Your task to perform on an android device: change the clock display to digital Image 0: 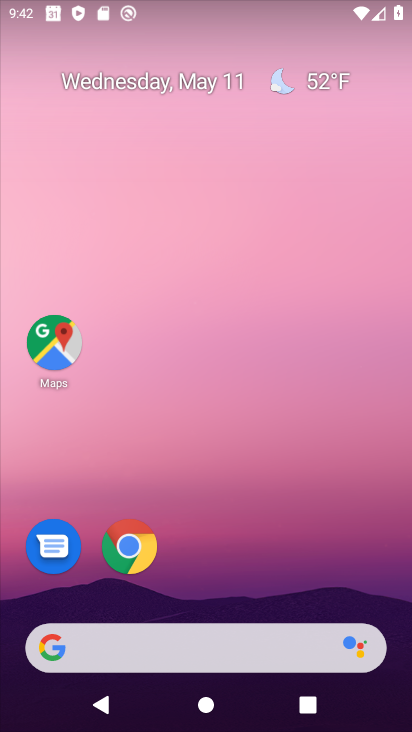
Step 0: drag from (202, 629) to (157, 13)
Your task to perform on an android device: change the clock display to digital Image 1: 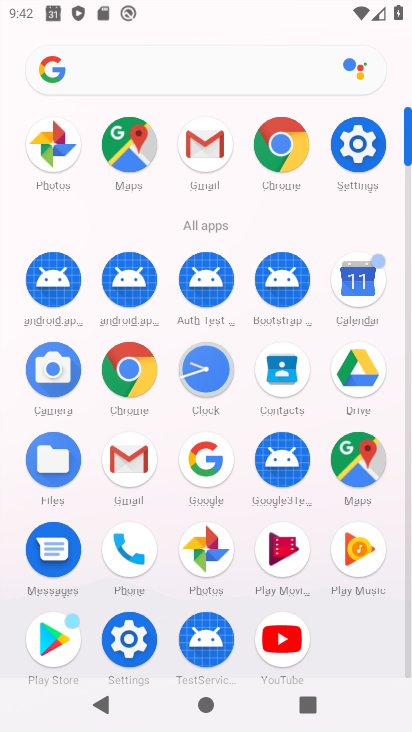
Step 1: click (223, 366)
Your task to perform on an android device: change the clock display to digital Image 2: 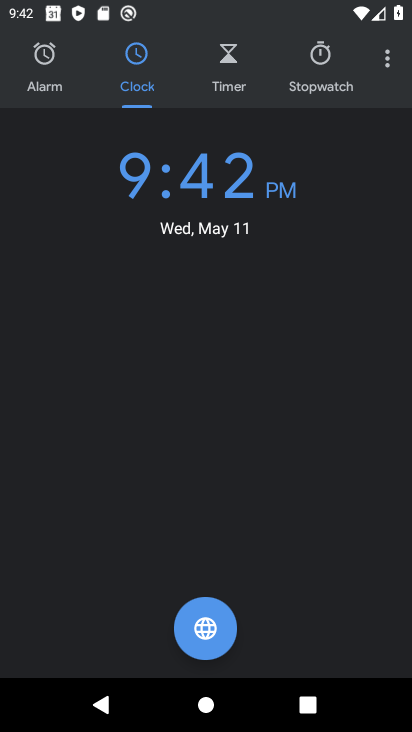
Step 2: click (381, 71)
Your task to perform on an android device: change the clock display to digital Image 3: 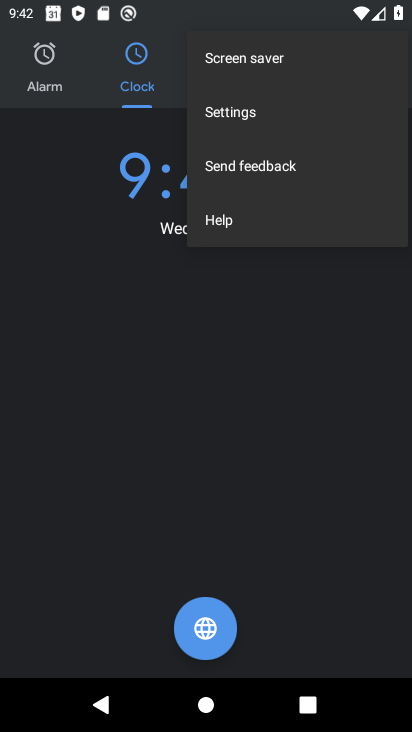
Step 3: click (267, 126)
Your task to perform on an android device: change the clock display to digital Image 4: 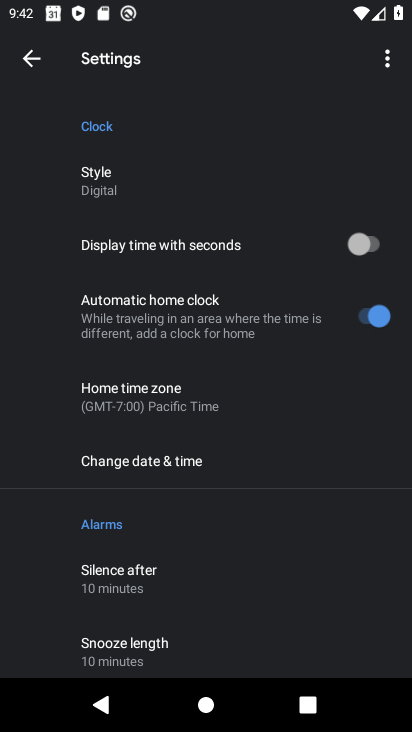
Step 4: task complete